Your task to perform on an android device: open app "Facebook Messenger" Image 0: 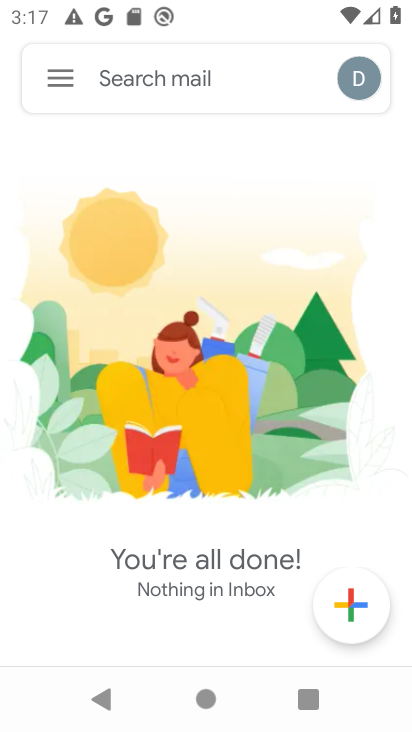
Step 0: press home button
Your task to perform on an android device: open app "Facebook Messenger" Image 1: 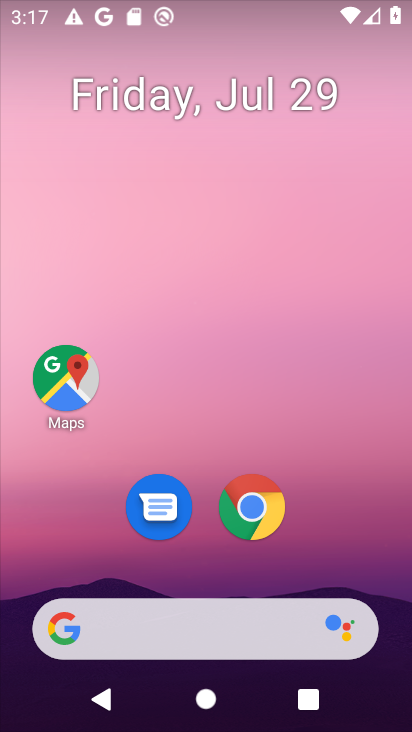
Step 1: click (149, 619)
Your task to perform on an android device: open app "Facebook Messenger" Image 2: 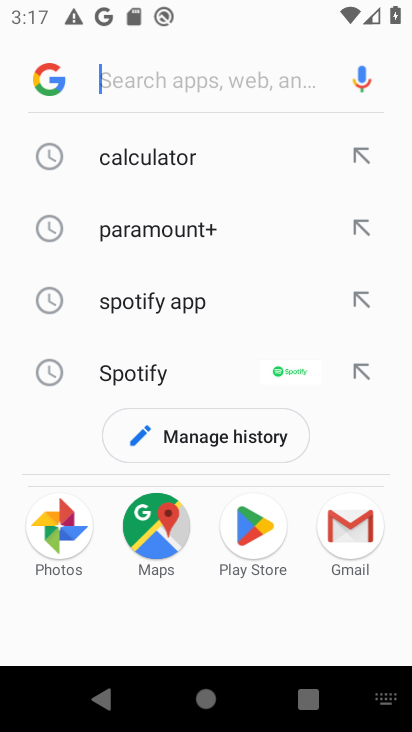
Step 2: type "facebook.com"
Your task to perform on an android device: open app "Facebook Messenger" Image 3: 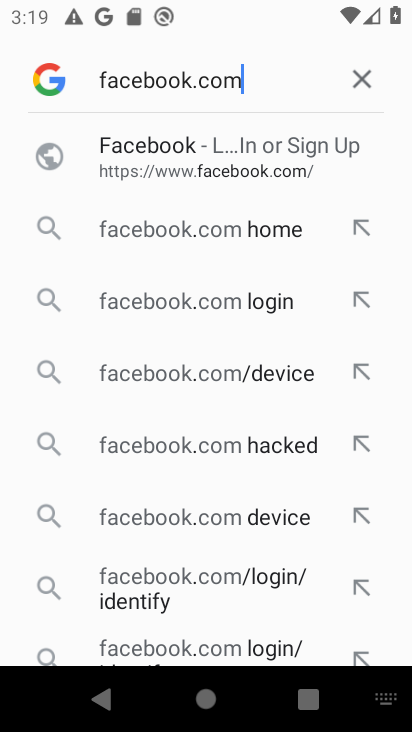
Step 3: click (245, 126)
Your task to perform on an android device: open app "Facebook Messenger" Image 4: 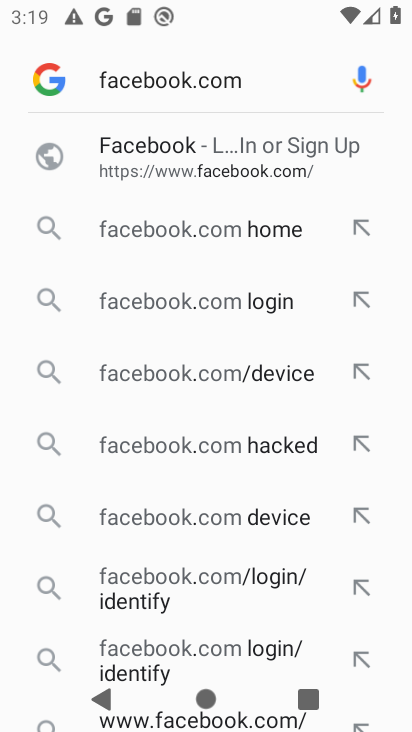
Step 4: task complete